Your task to perform on an android device: What's the weather? Image 0: 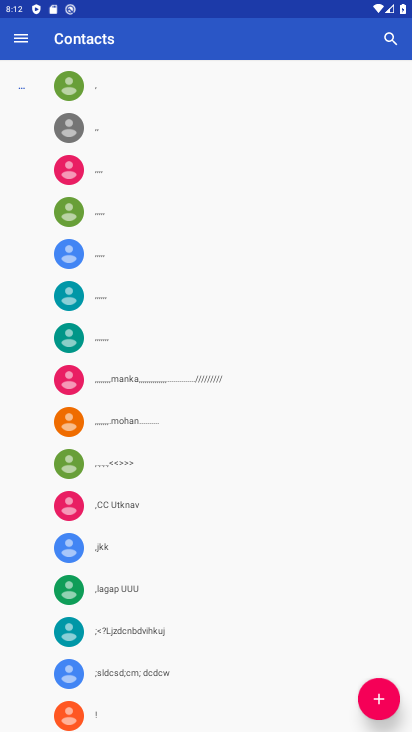
Step 0: press home button
Your task to perform on an android device: What's the weather? Image 1: 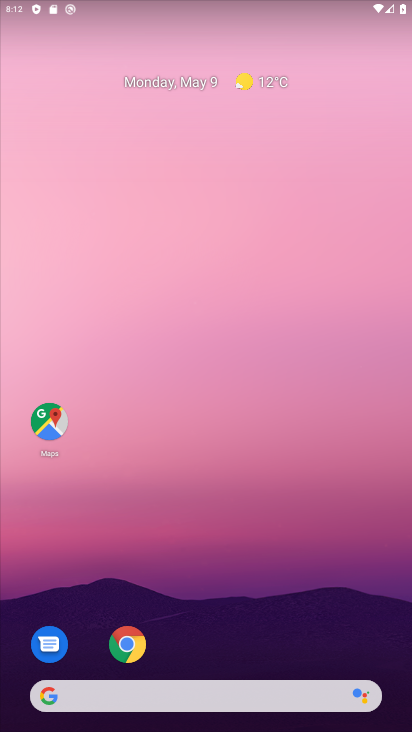
Step 1: drag from (247, 610) to (265, 312)
Your task to perform on an android device: What's the weather? Image 2: 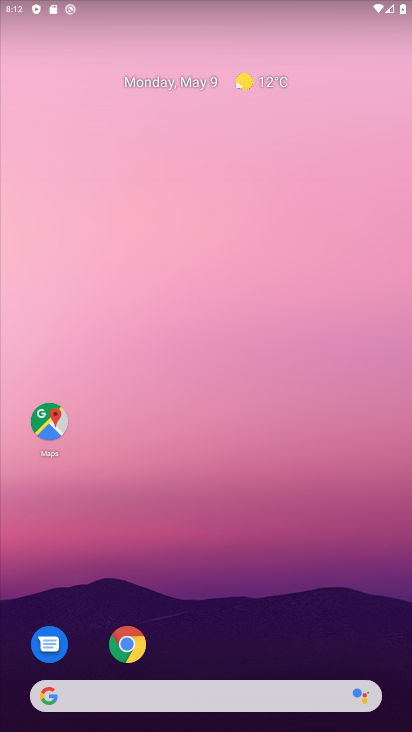
Step 2: drag from (214, 303) to (262, 44)
Your task to perform on an android device: What's the weather? Image 3: 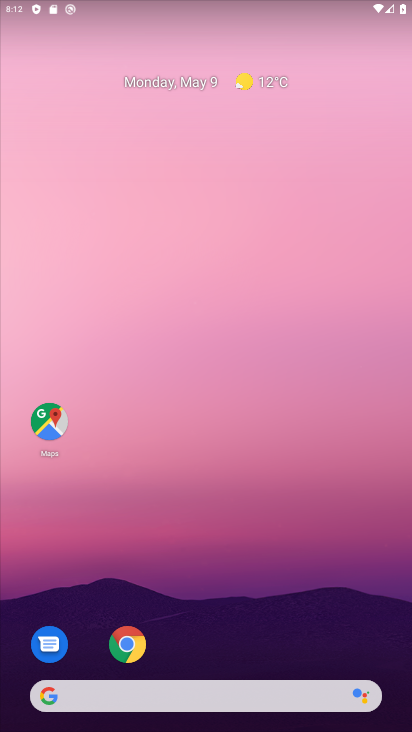
Step 3: drag from (228, 643) to (226, 45)
Your task to perform on an android device: What's the weather? Image 4: 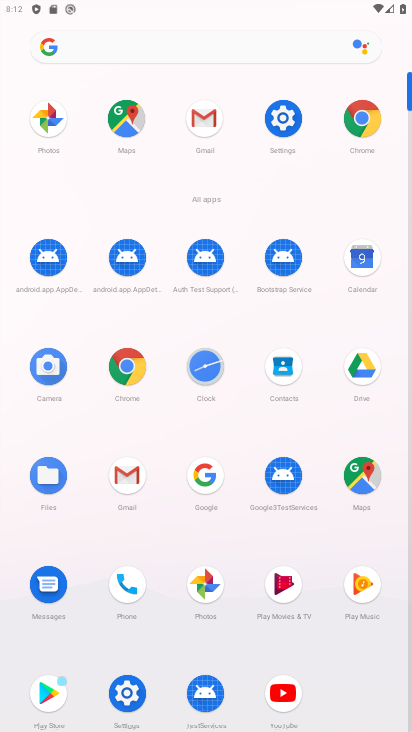
Step 4: click (358, 149)
Your task to perform on an android device: What's the weather? Image 5: 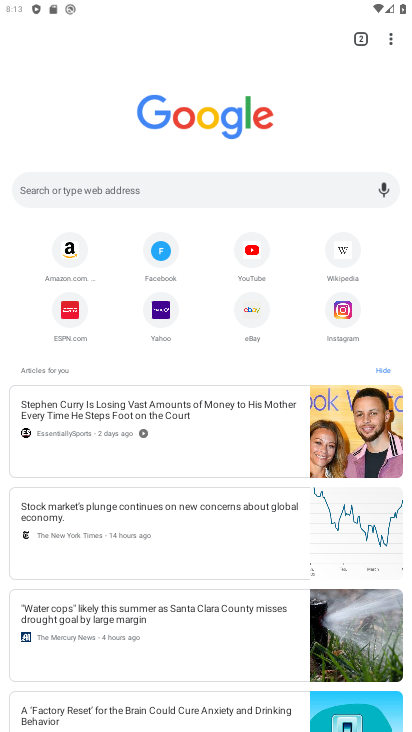
Step 5: click (227, 189)
Your task to perform on an android device: What's the weather? Image 6: 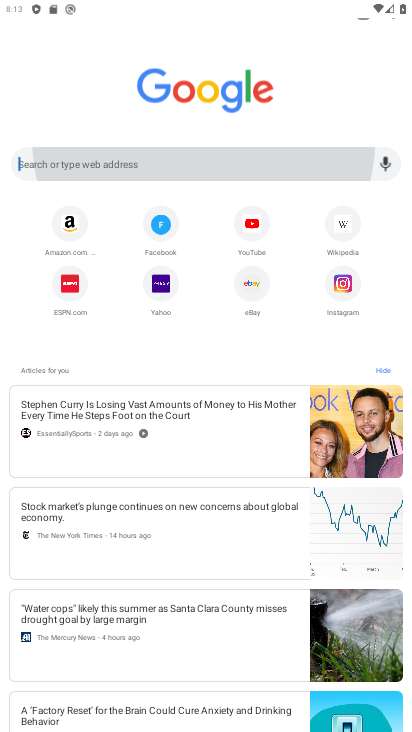
Step 6: click (138, 199)
Your task to perform on an android device: What's the weather? Image 7: 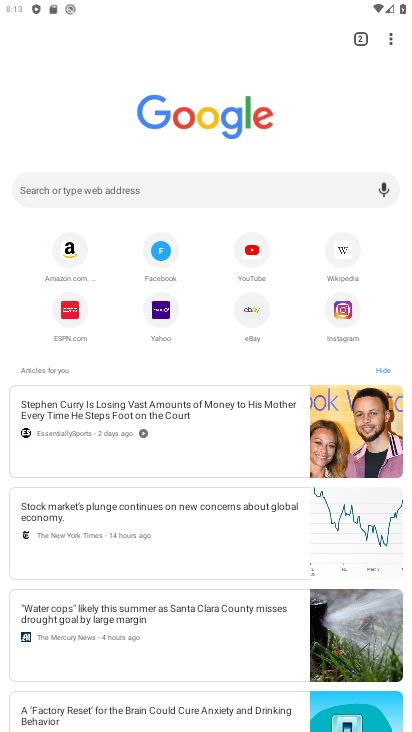
Step 7: type "whether"
Your task to perform on an android device: What's the weather? Image 8: 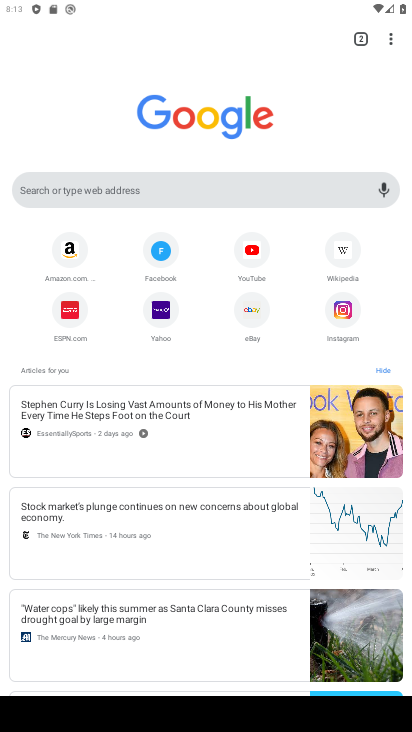
Step 8: click (231, 187)
Your task to perform on an android device: What's the weather? Image 9: 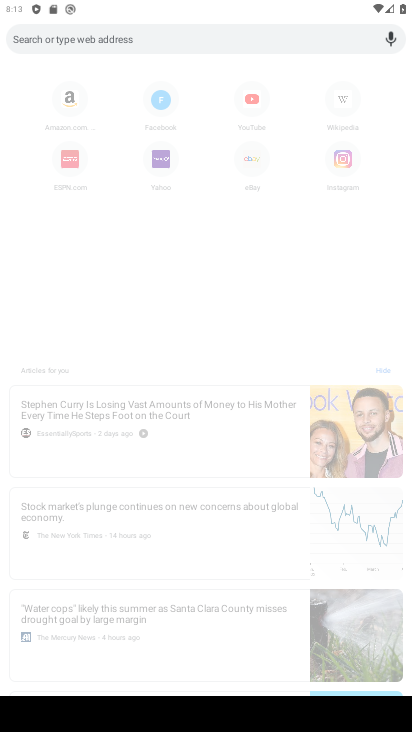
Step 9: type "whether"
Your task to perform on an android device: What's the weather? Image 10: 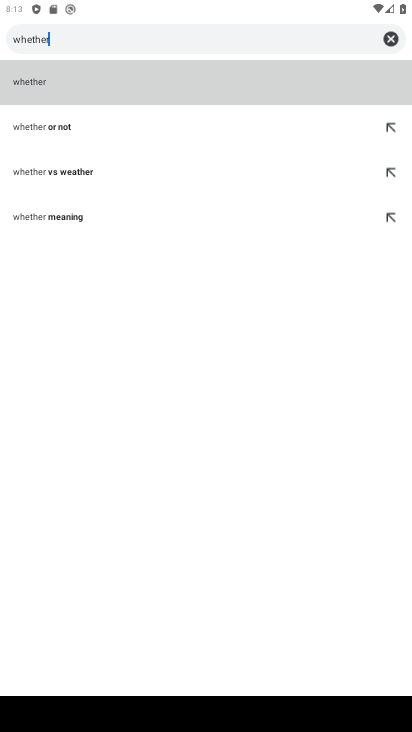
Step 10: click (39, 83)
Your task to perform on an android device: What's the weather? Image 11: 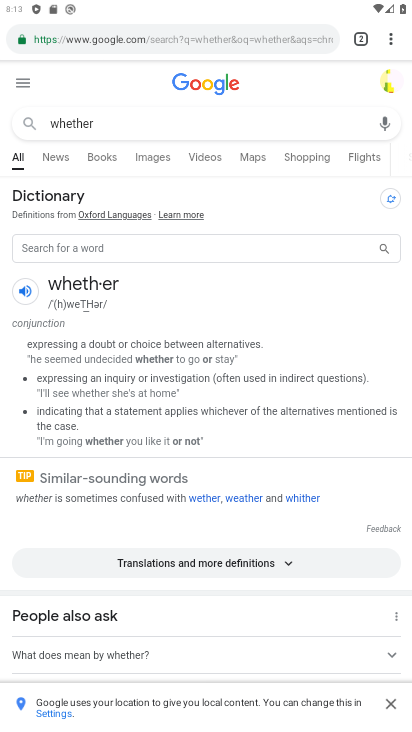
Step 11: click (34, 88)
Your task to perform on an android device: What's the weather? Image 12: 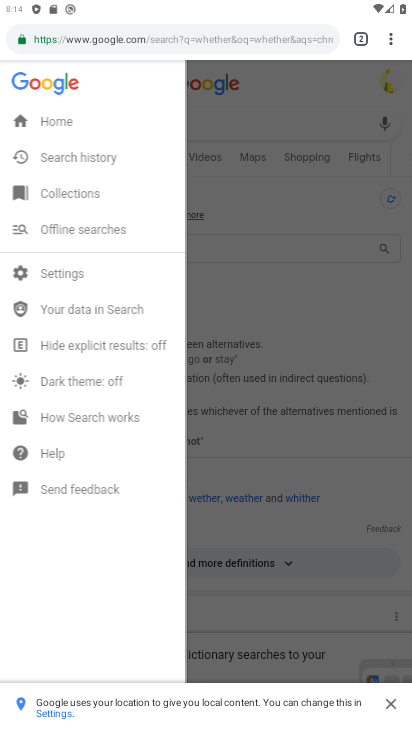
Step 12: click (34, 88)
Your task to perform on an android device: What's the weather? Image 13: 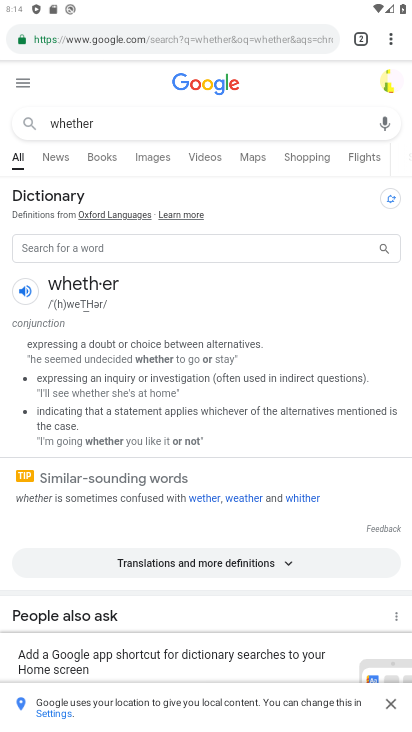
Step 13: press home button
Your task to perform on an android device: What's the weather? Image 14: 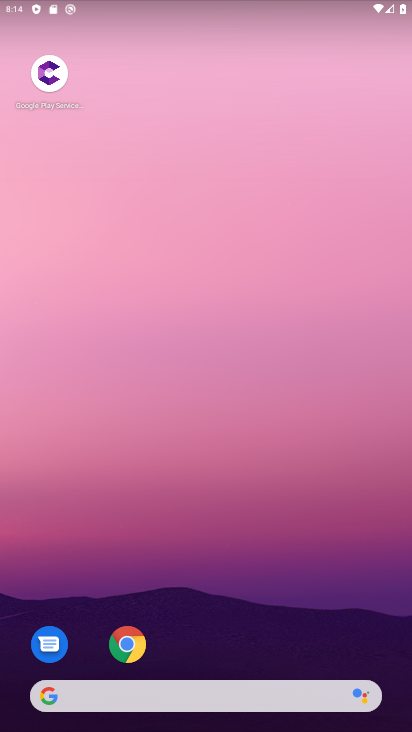
Step 14: drag from (192, 601) to (172, 249)
Your task to perform on an android device: What's the weather? Image 15: 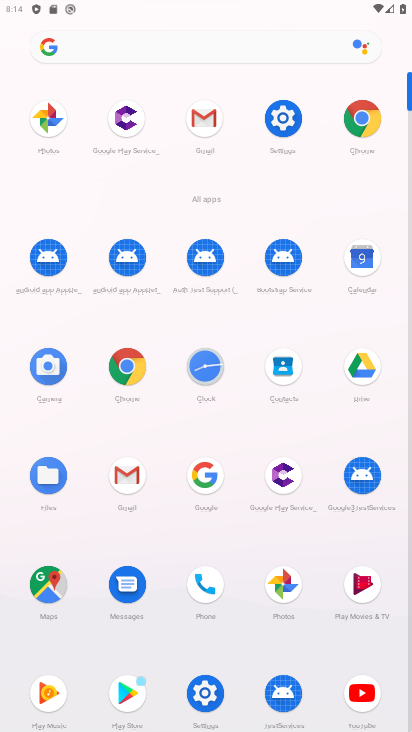
Step 15: click (205, 483)
Your task to perform on an android device: What's the weather? Image 16: 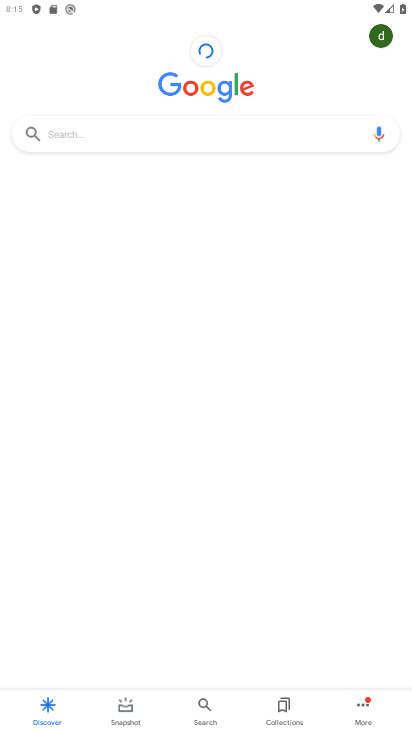
Step 16: click (200, 487)
Your task to perform on an android device: What's the weather? Image 17: 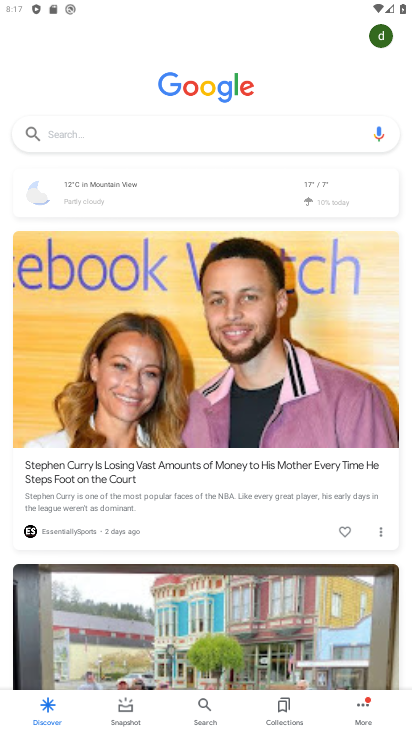
Step 17: click (150, 134)
Your task to perform on an android device: What's the weather? Image 18: 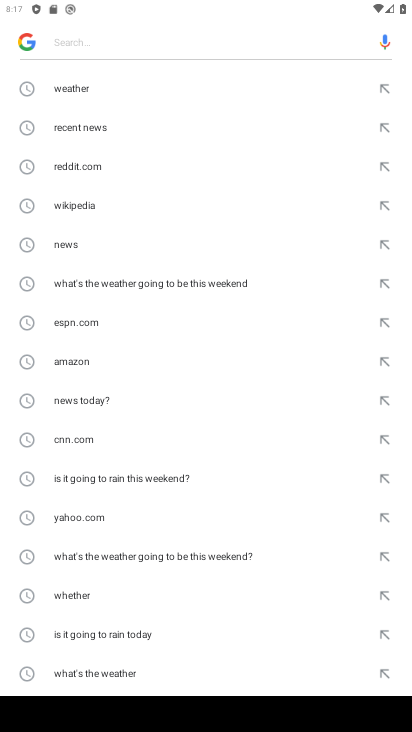
Step 18: click (67, 80)
Your task to perform on an android device: What's the weather? Image 19: 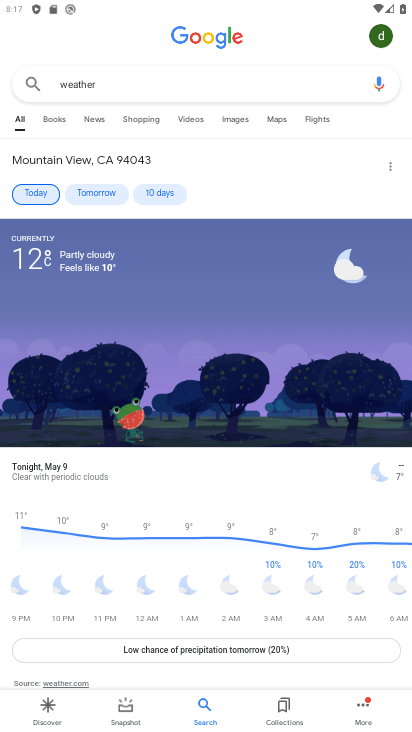
Step 19: task complete